Your task to perform on an android device: uninstall "Messenger Lite" Image 0: 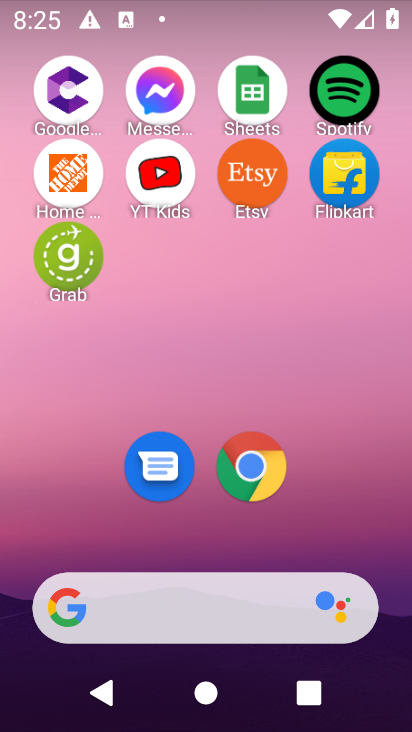
Step 0: drag from (79, 527) to (157, 196)
Your task to perform on an android device: uninstall "Messenger Lite" Image 1: 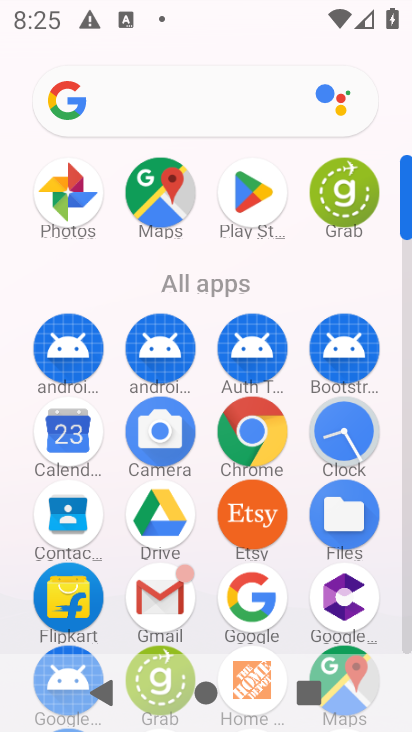
Step 1: click (246, 197)
Your task to perform on an android device: uninstall "Messenger Lite" Image 2: 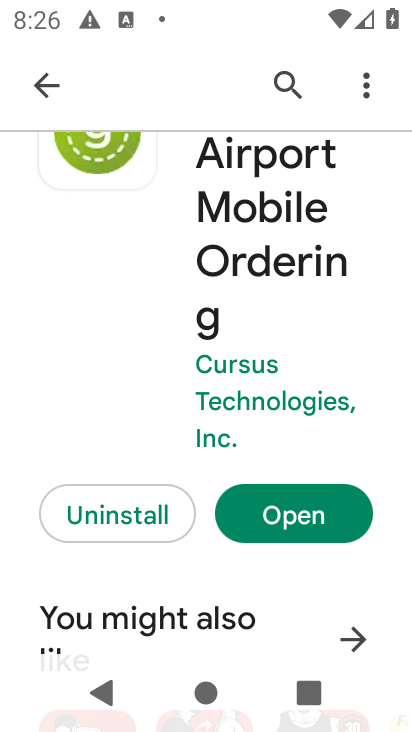
Step 2: click (278, 74)
Your task to perform on an android device: uninstall "Messenger Lite" Image 3: 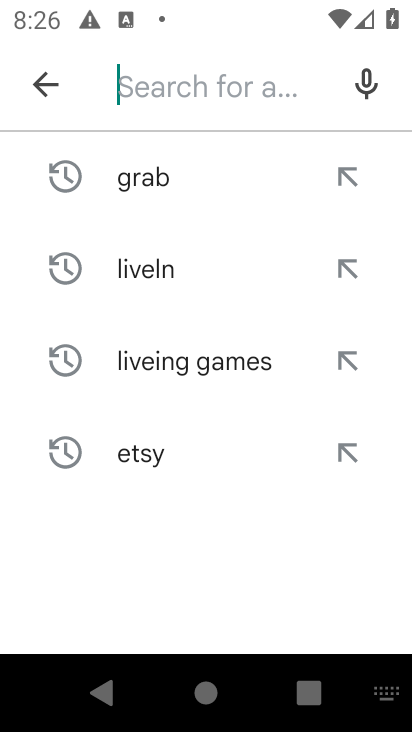
Step 3: click (140, 86)
Your task to perform on an android device: uninstall "Messenger Lite" Image 4: 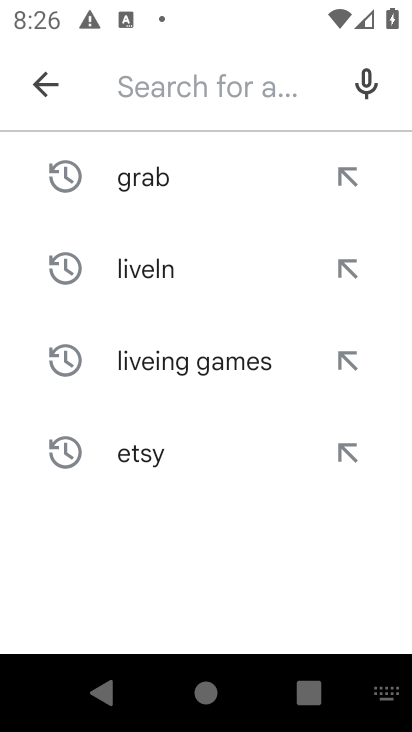
Step 4: type "Messenger Lite"
Your task to perform on an android device: uninstall "Messenger Lite" Image 5: 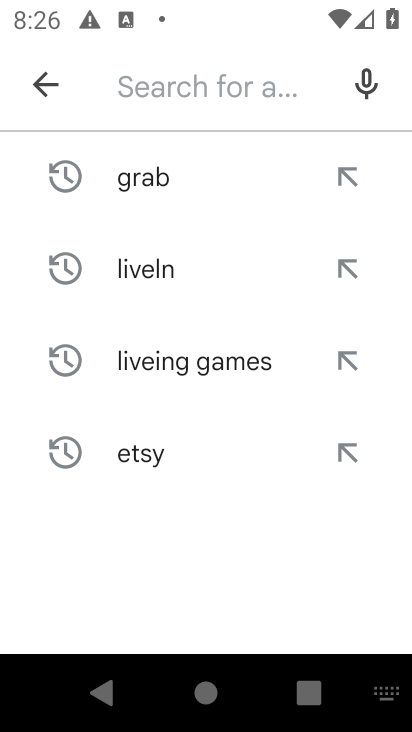
Step 5: click (274, 576)
Your task to perform on an android device: uninstall "Messenger Lite" Image 6: 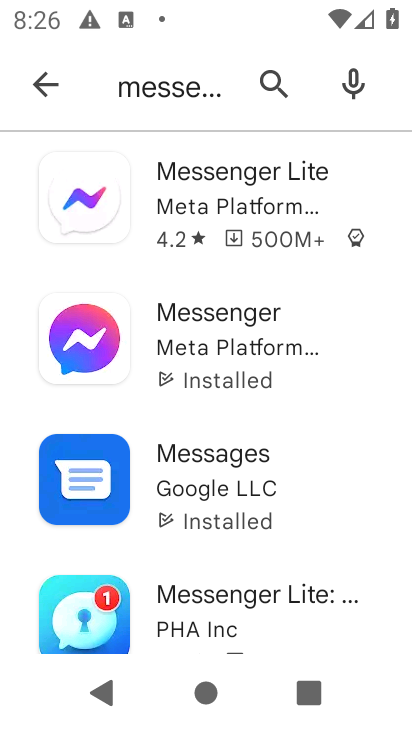
Step 6: click (210, 179)
Your task to perform on an android device: uninstall "Messenger Lite" Image 7: 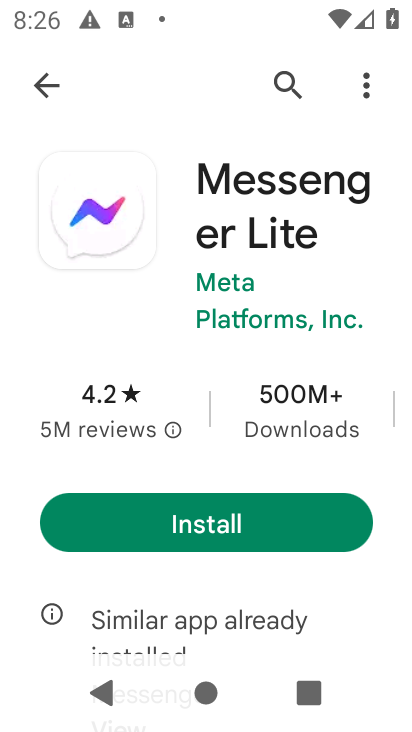
Step 7: task complete